Your task to perform on an android device: Turn off the flashlight Image 0: 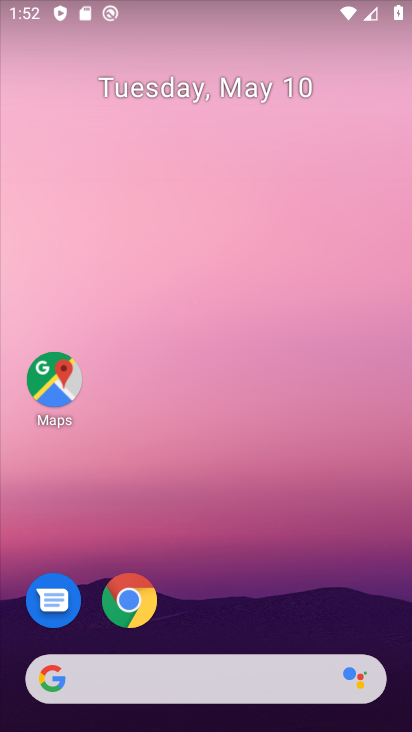
Step 0: drag from (272, 32) to (174, 401)
Your task to perform on an android device: Turn off the flashlight Image 1: 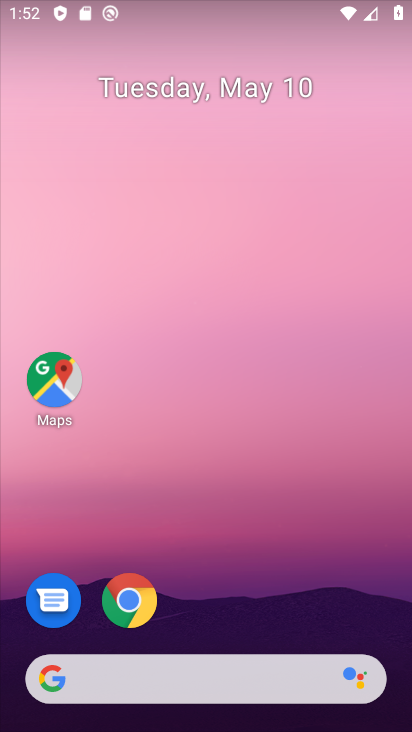
Step 1: task complete